Your task to perform on an android device: empty trash in the gmail app Image 0: 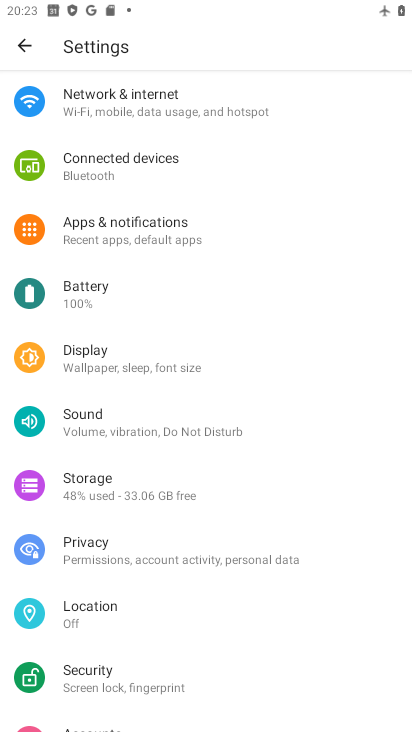
Step 0: press home button
Your task to perform on an android device: empty trash in the gmail app Image 1: 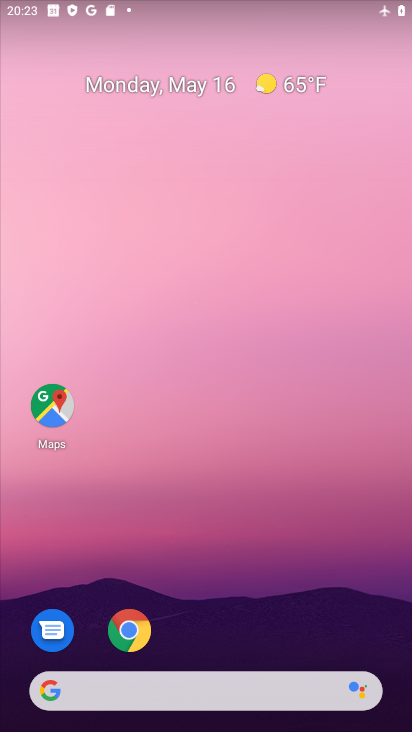
Step 1: drag from (229, 651) to (247, 182)
Your task to perform on an android device: empty trash in the gmail app Image 2: 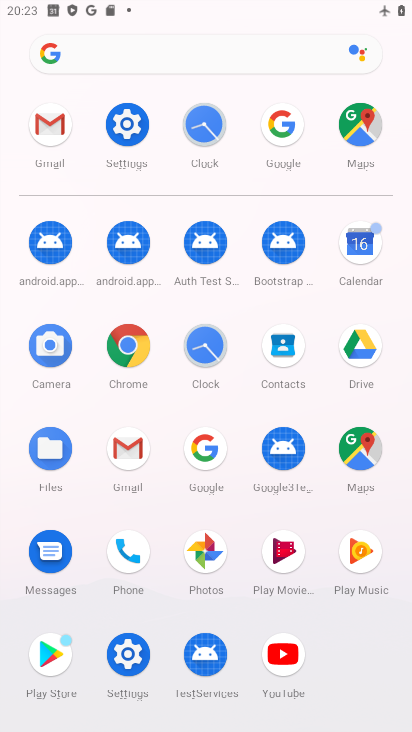
Step 2: click (43, 147)
Your task to perform on an android device: empty trash in the gmail app Image 3: 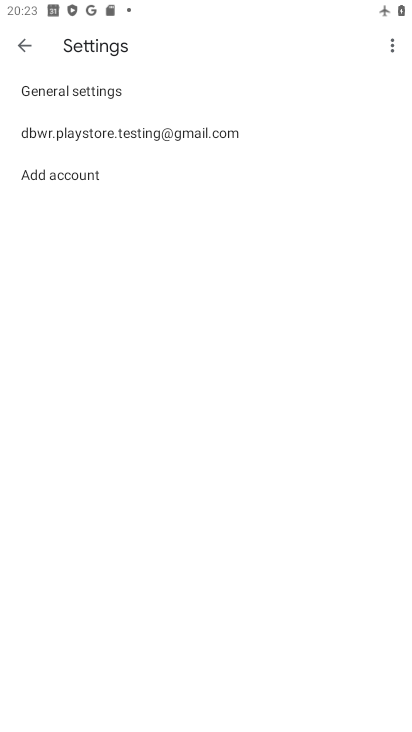
Step 3: click (15, 51)
Your task to perform on an android device: empty trash in the gmail app Image 4: 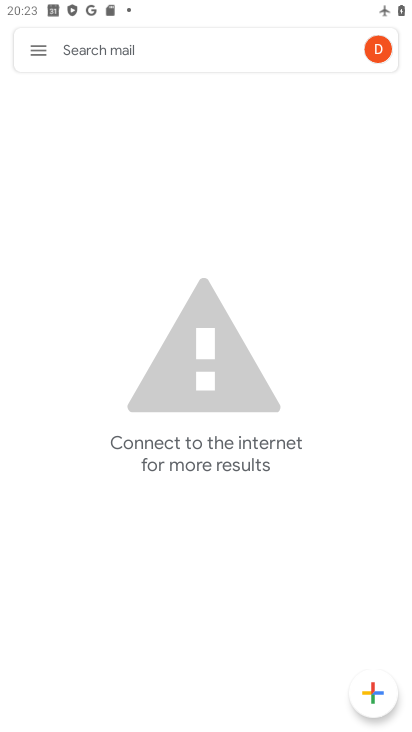
Step 4: click (25, 53)
Your task to perform on an android device: empty trash in the gmail app Image 5: 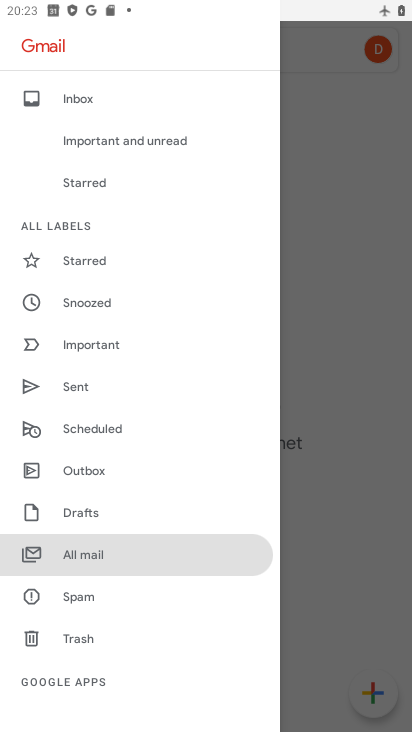
Step 5: click (102, 641)
Your task to perform on an android device: empty trash in the gmail app Image 6: 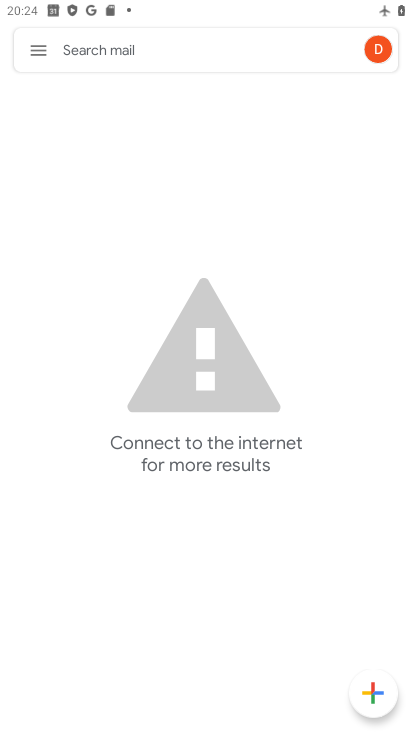
Step 6: task complete